Your task to perform on an android device: Go to battery settings Image 0: 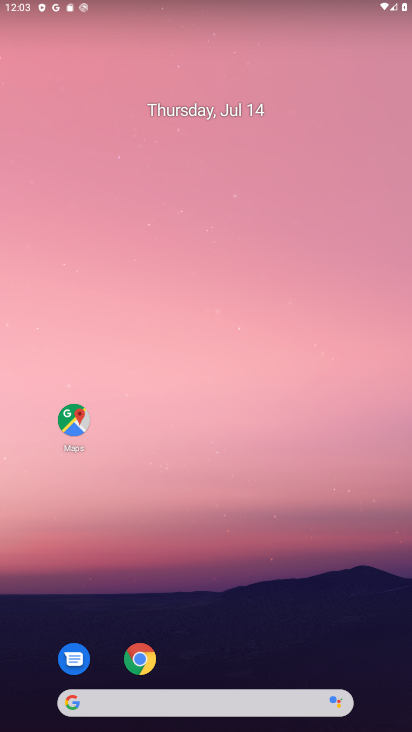
Step 0: drag from (84, 510) to (223, 158)
Your task to perform on an android device: Go to battery settings Image 1: 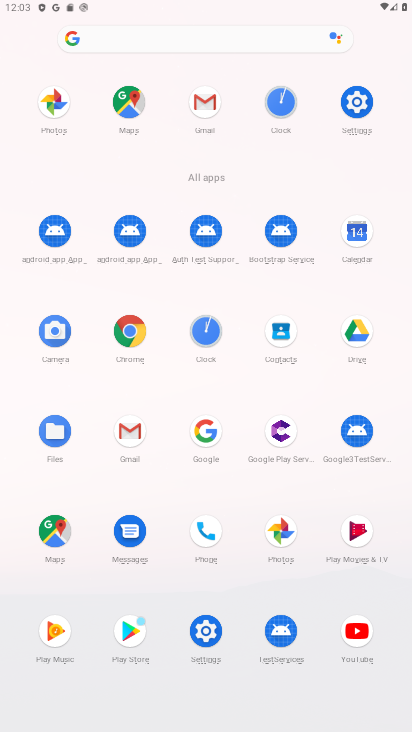
Step 1: click (201, 635)
Your task to perform on an android device: Go to battery settings Image 2: 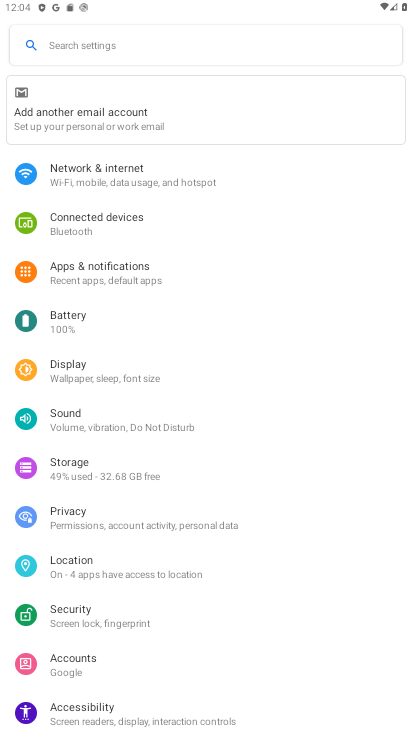
Step 2: click (113, 318)
Your task to perform on an android device: Go to battery settings Image 3: 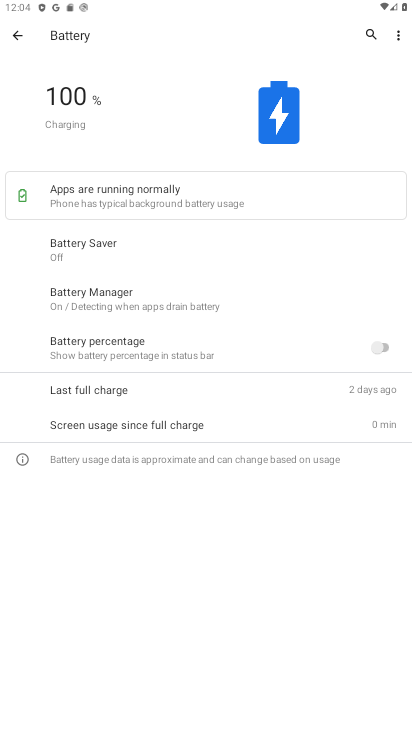
Step 3: task complete